Your task to perform on an android device: turn off smart reply in the gmail app Image 0: 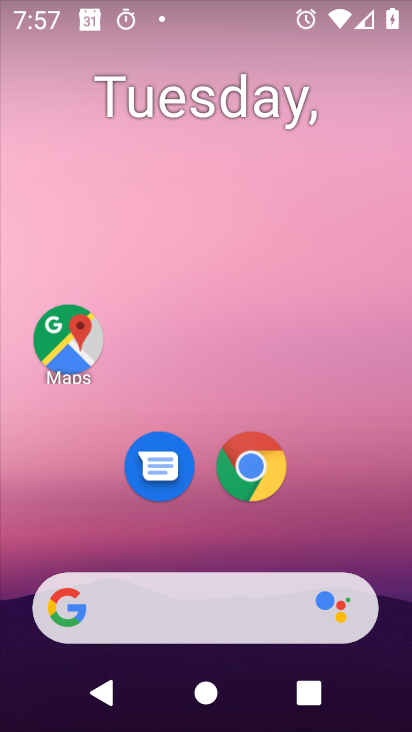
Step 0: press home button
Your task to perform on an android device: turn off smart reply in the gmail app Image 1: 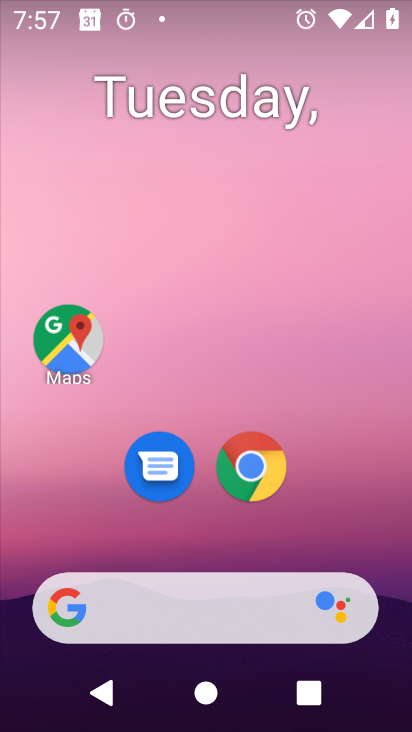
Step 1: drag from (87, 563) to (379, 131)
Your task to perform on an android device: turn off smart reply in the gmail app Image 2: 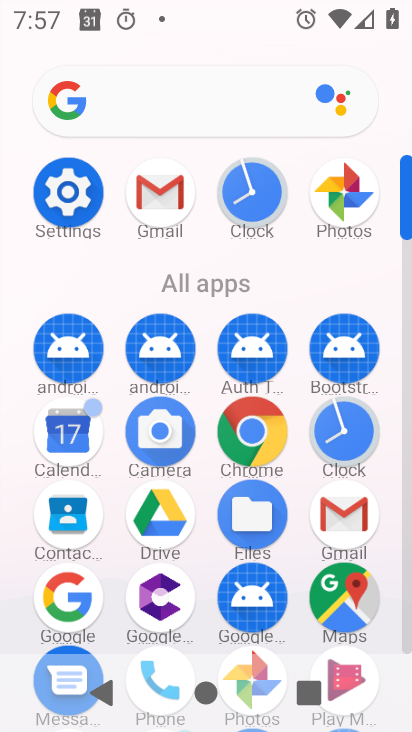
Step 2: click (171, 193)
Your task to perform on an android device: turn off smart reply in the gmail app Image 3: 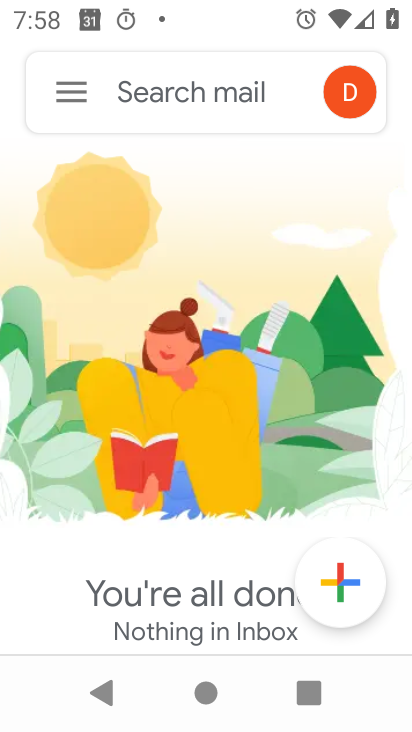
Step 3: click (74, 76)
Your task to perform on an android device: turn off smart reply in the gmail app Image 4: 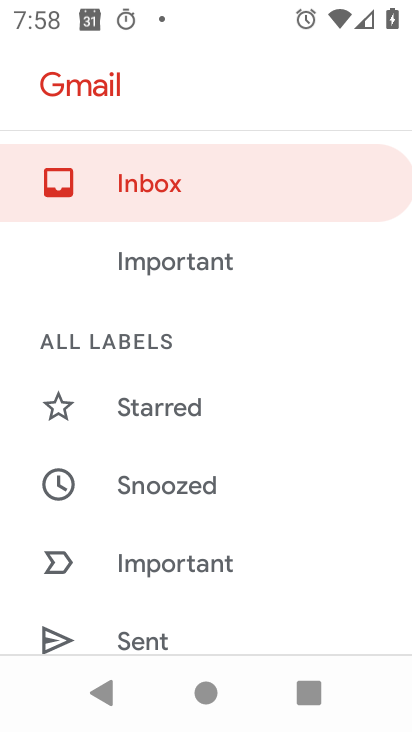
Step 4: drag from (26, 642) to (221, 139)
Your task to perform on an android device: turn off smart reply in the gmail app Image 5: 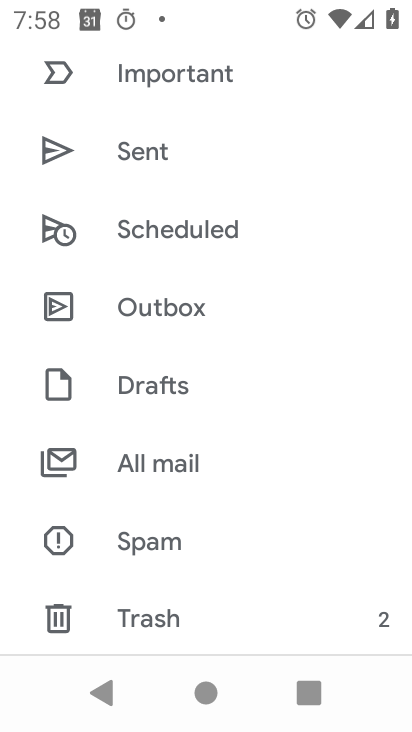
Step 5: drag from (26, 557) to (274, 57)
Your task to perform on an android device: turn off smart reply in the gmail app Image 6: 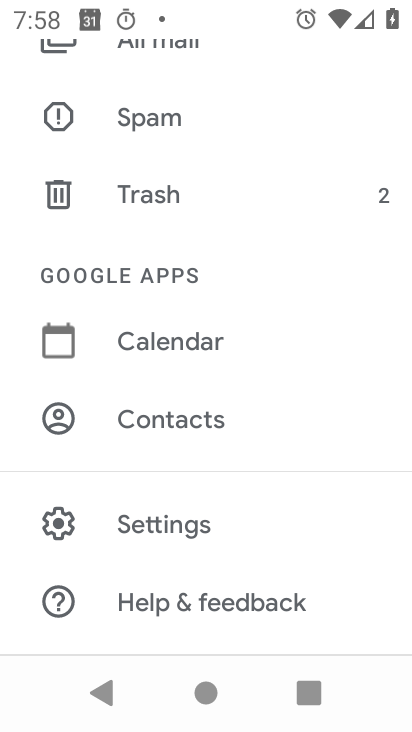
Step 6: click (185, 527)
Your task to perform on an android device: turn off smart reply in the gmail app Image 7: 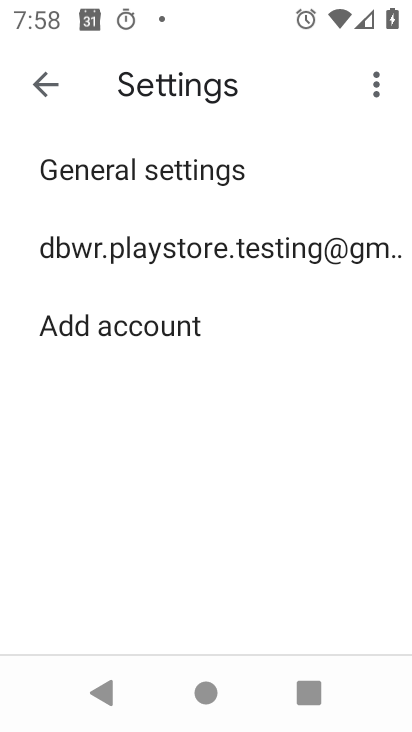
Step 7: click (221, 242)
Your task to perform on an android device: turn off smart reply in the gmail app Image 8: 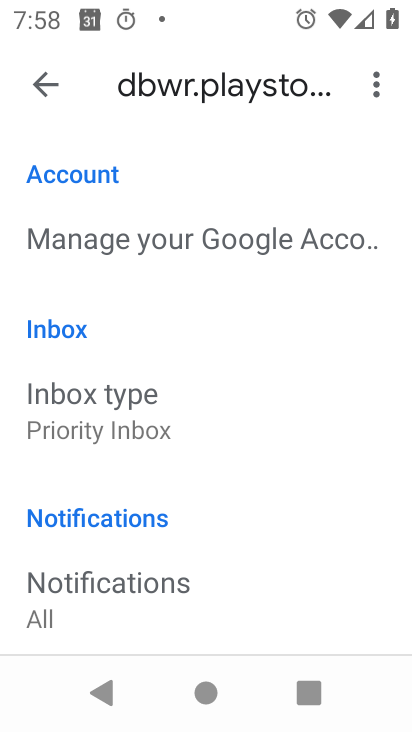
Step 8: drag from (26, 407) to (184, 150)
Your task to perform on an android device: turn off smart reply in the gmail app Image 9: 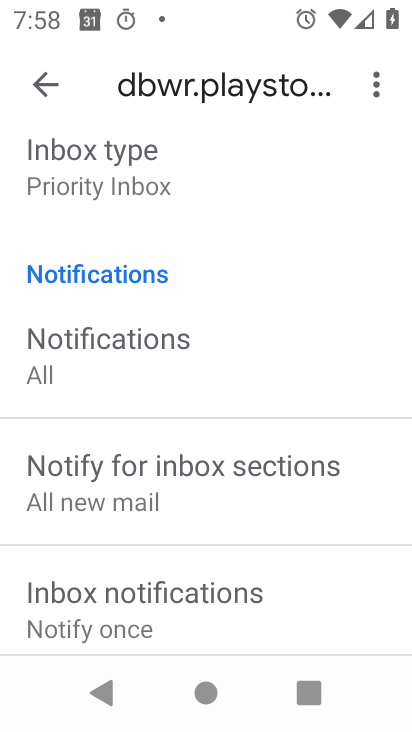
Step 9: drag from (27, 664) to (197, 122)
Your task to perform on an android device: turn off smart reply in the gmail app Image 10: 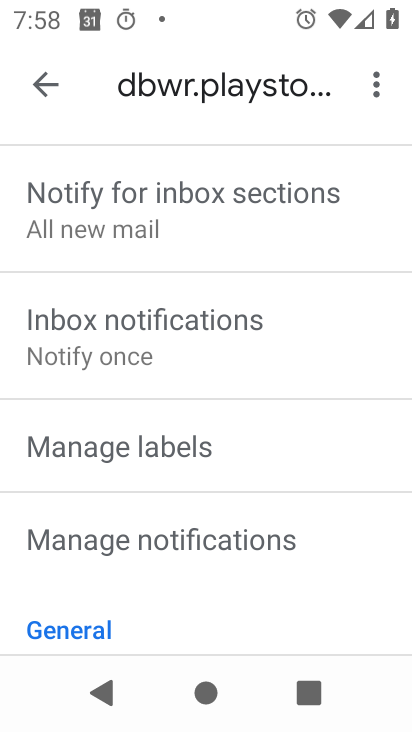
Step 10: drag from (10, 562) to (266, 70)
Your task to perform on an android device: turn off smart reply in the gmail app Image 11: 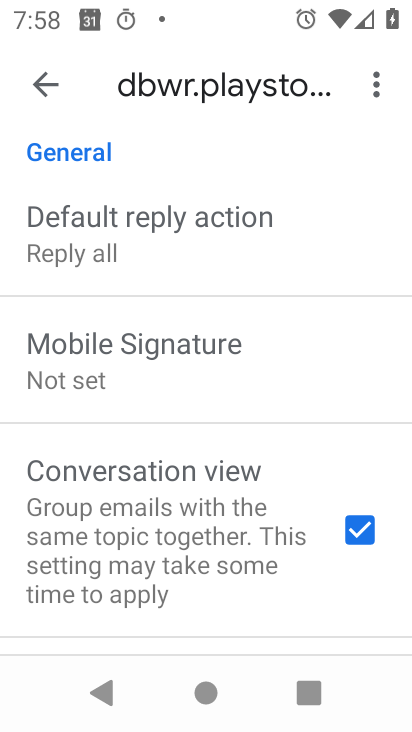
Step 11: drag from (17, 618) to (214, 237)
Your task to perform on an android device: turn off smart reply in the gmail app Image 12: 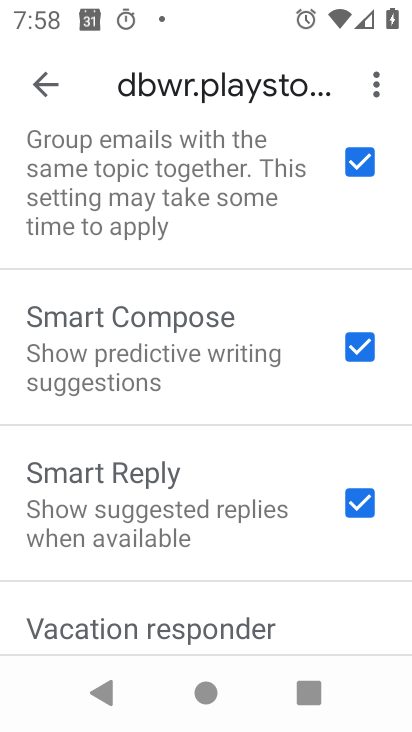
Step 12: click (357, 497)
Your task to perform on an android device: turn off smart reply in the gmail app Image 13: 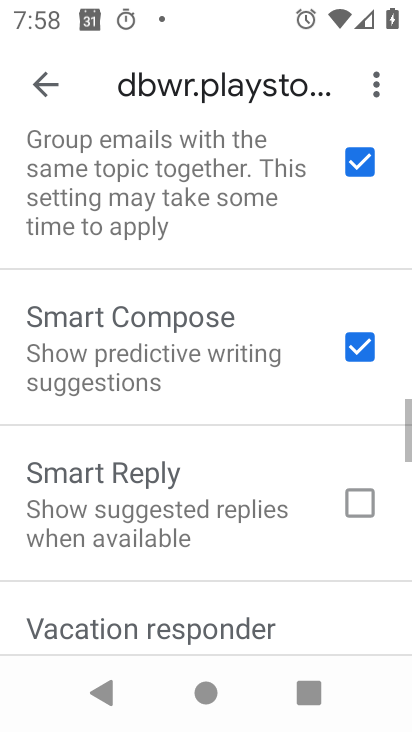
Step 13: task complete